Your task to perform on an android device: check out phone information Image 0: 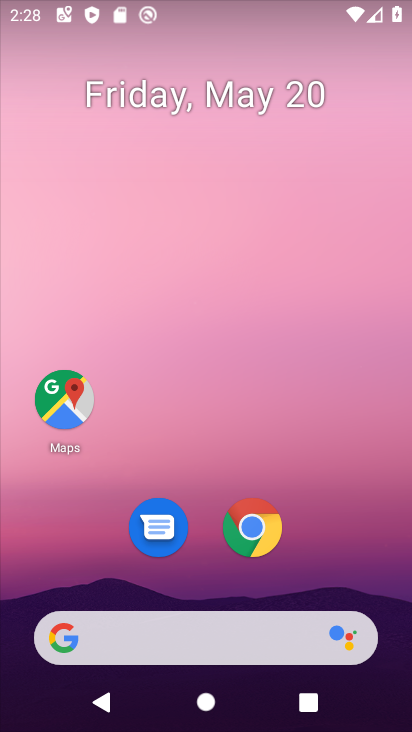
Step 0: drag from (254, 708) to (253, 105)
Your task to perform on an android device: check out phone information Image 1: 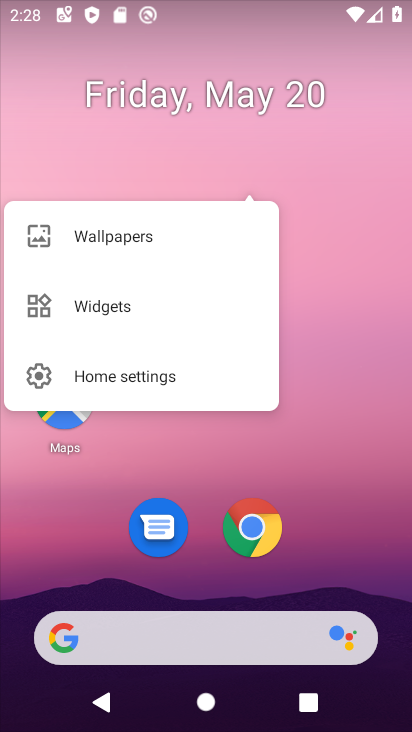
Step 1: click (360, 422)
Your task to perform on an android device: check out phone information Image 2: 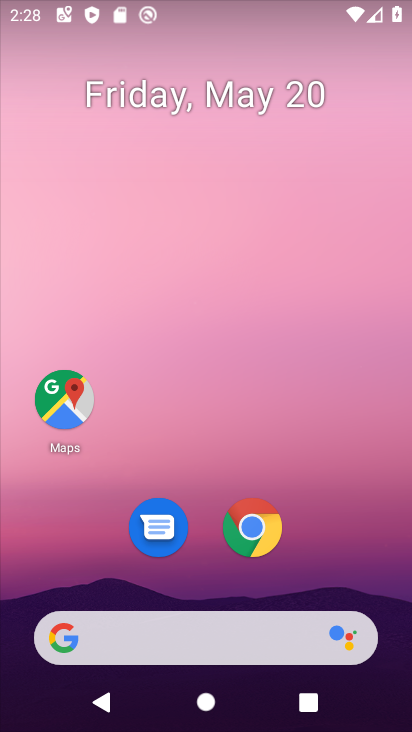
Step 2: drag from (255, 260) to (255, 131)
Your task to perform on an android device: check out phone information Image 3: 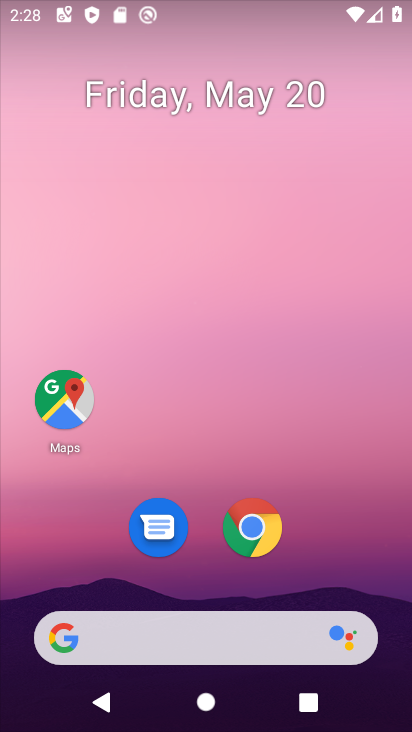
Step 3: drag from (266, 705) to (280, 11)
Your task to perform on an android device: check out phone information Image 4: 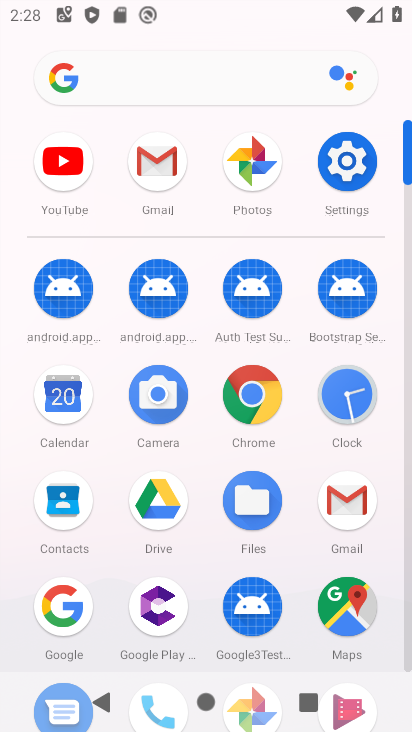
Step 4: click (361, 161)
Your task to perform on an android device: check out phone information Image 5: 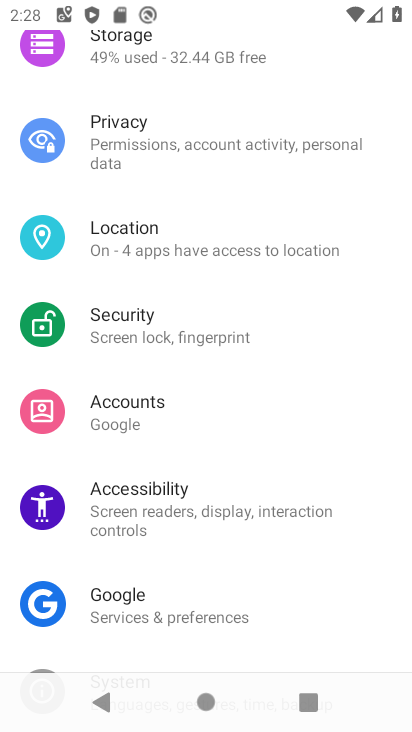
Step 5: drag from (218, 605) to (250, 20)
Your task to perform on an android device: check out phone information Image 6: 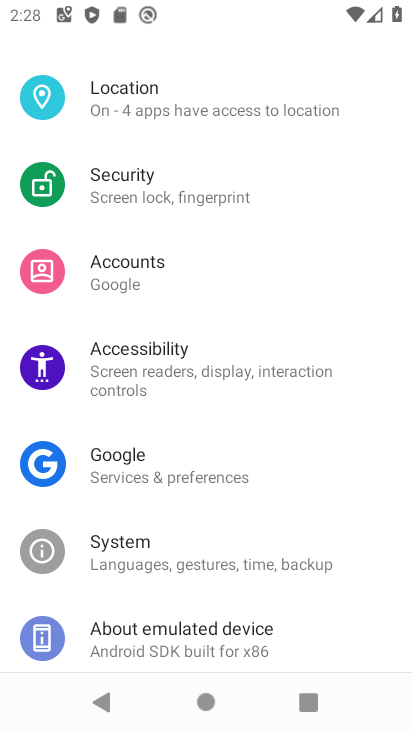
Step 6: click (214, 626)
Your task to perform on an android device: check out phone information Image 7: 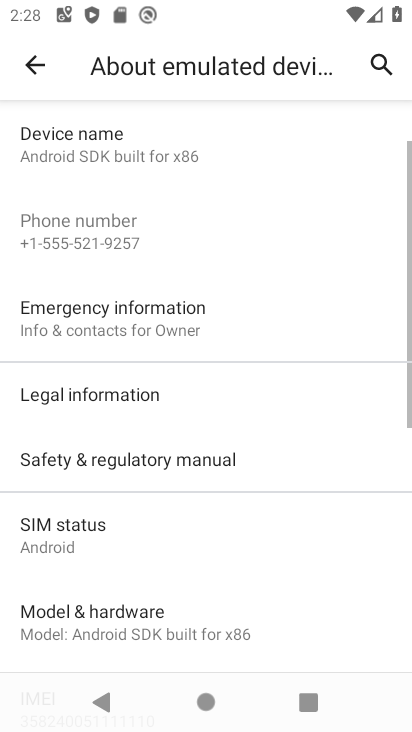
Step 7: task complete